Your task to perform on an android device: Go to Amazon Image 0: 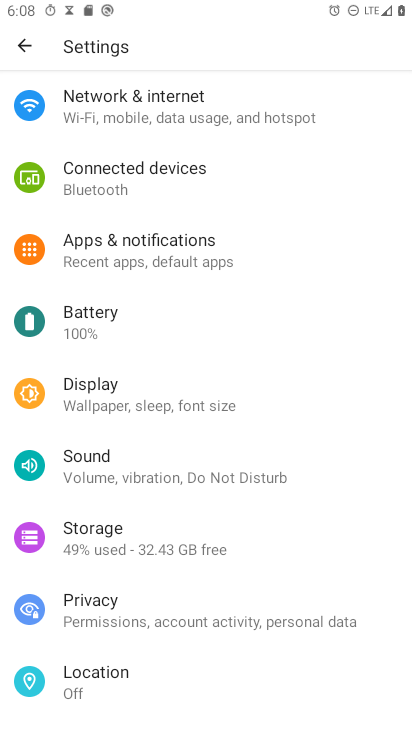
Step 0: press home button
Your task to perform on an android device: Go to Amazon Image 1: 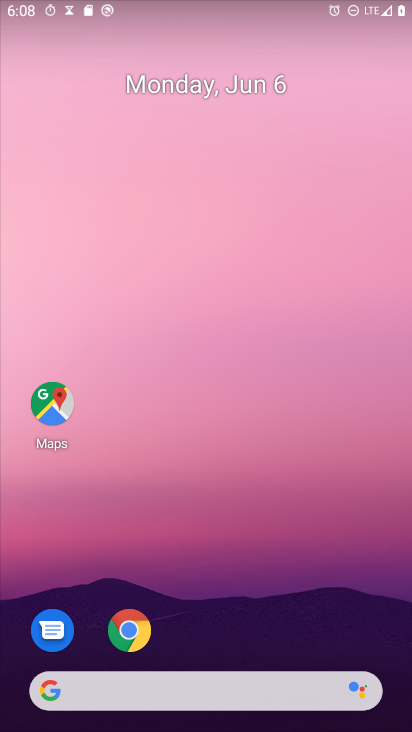
Step 1: click (128, 639)
Your task to perform on an android device: Go to Amazon Image 2: 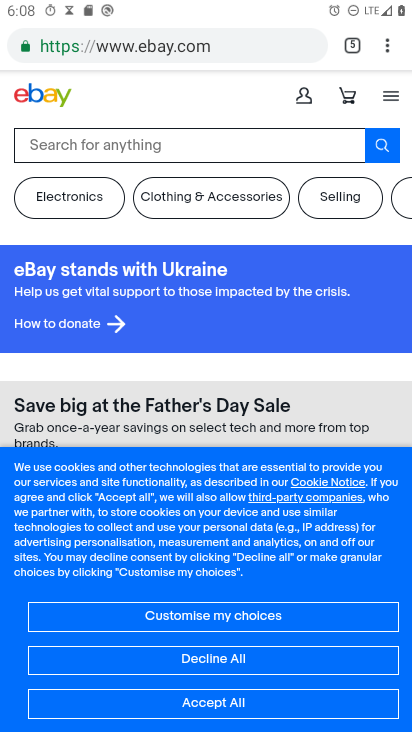
Step 2: click (355, 51)
Your task to perform on an android device: Go to Amazon Image 3: 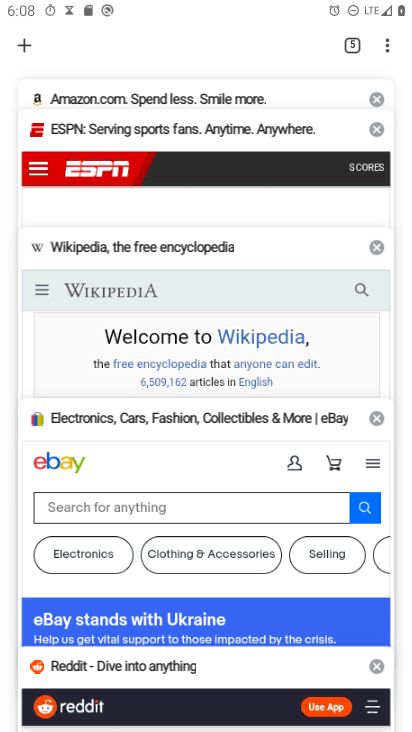
Step 3: click (121, 95)
Your task to perform on an android device: Go to Amazon Image 4: 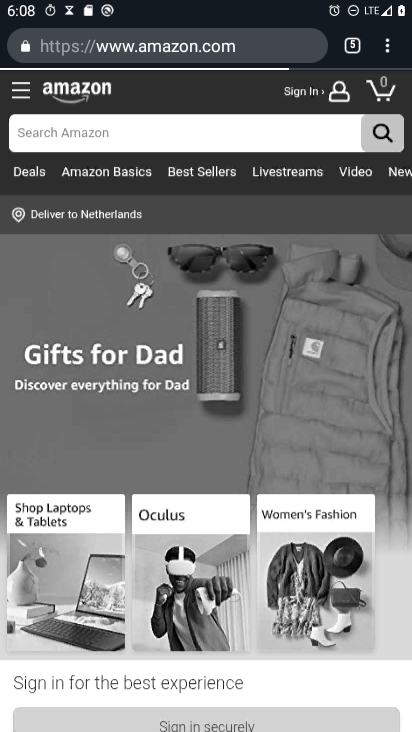
Step 4: task complete